Your task to perform on an android device: Open ESPN.com Image 0: 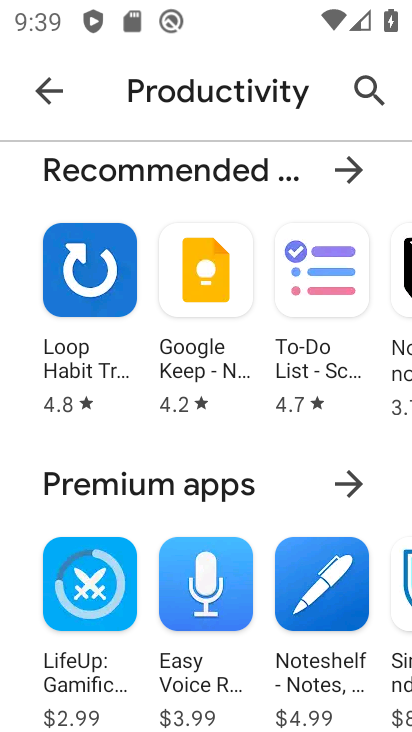
Step 0: click (58, 99)
Your task to perform on an android device: Open ESPN.com Image 1: 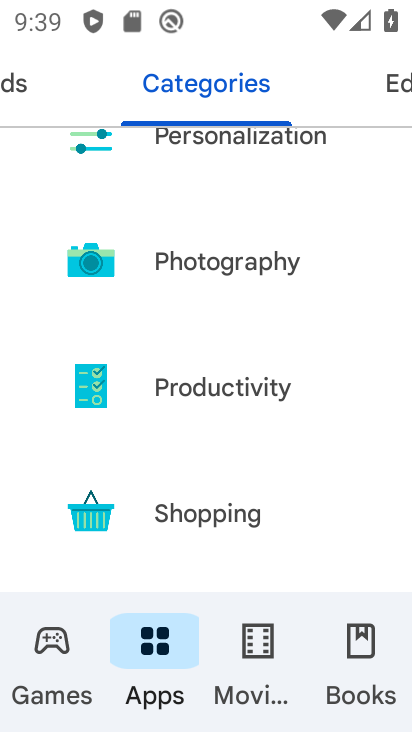
Step 1: press home button
Your task to perform on an android device: Open ESPN.com Image 2: 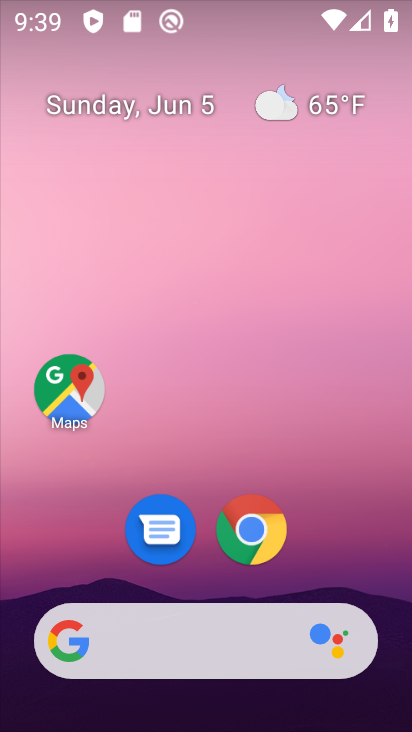
Step 2: click (271, 646)
Your task to perform on an android device: Open ESPN.com Image 3: 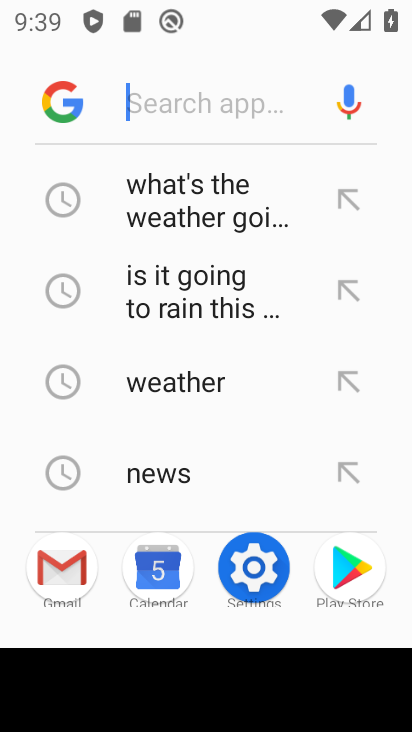
Step 3: type "espn.com"
Your task to perform on an android device: Open ESPN.com Image 4: 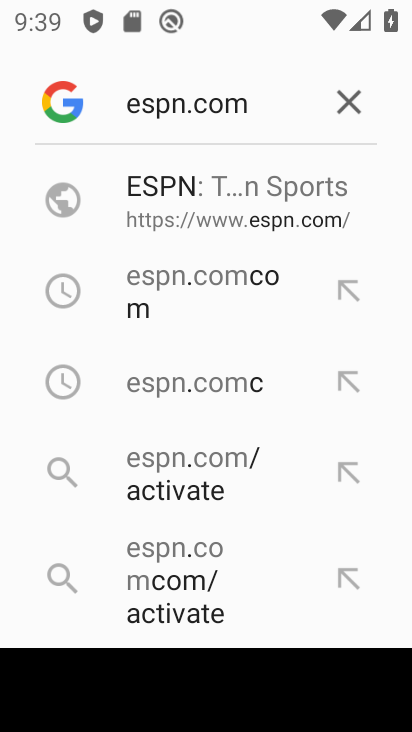
Step 4: click (281, 212)
Your task to perform on an android device: Open ESPN.com Image 5: 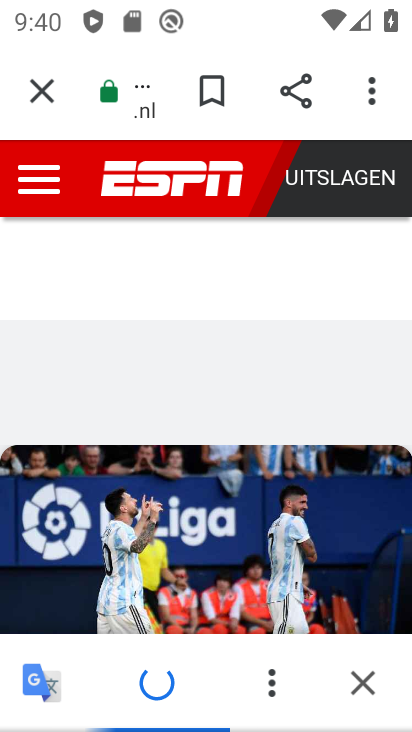
Step 5: task complete